Your task to perform on an android device: Open accessibility settings Image 0: 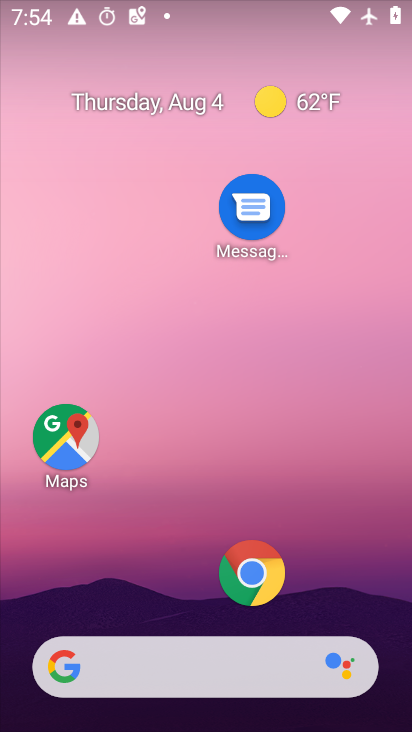
Step 0: press home button
Your task to perform on an android device: Open accessibility settings Image 1: 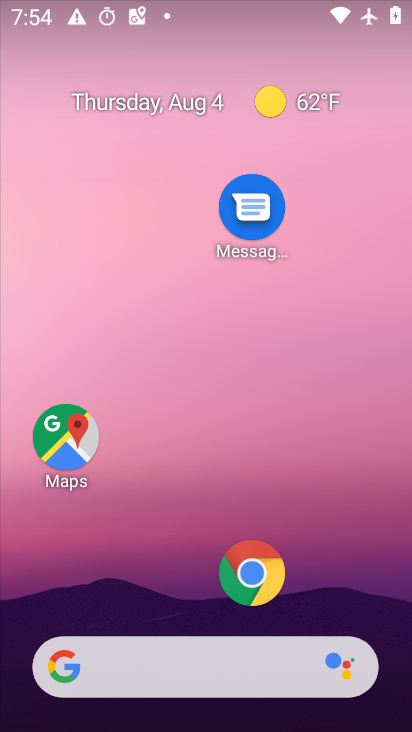
Step 1: drag from (147, 614) to (176, 108)
Your task to perform on an android device: Open accessibility settings Image 2: 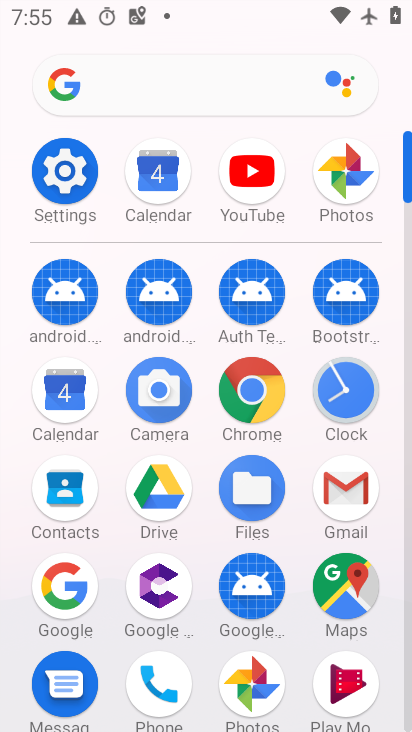
Step 2: click (61, 161)
Your task to perform on an android device: Open accessibility settings Image 3: 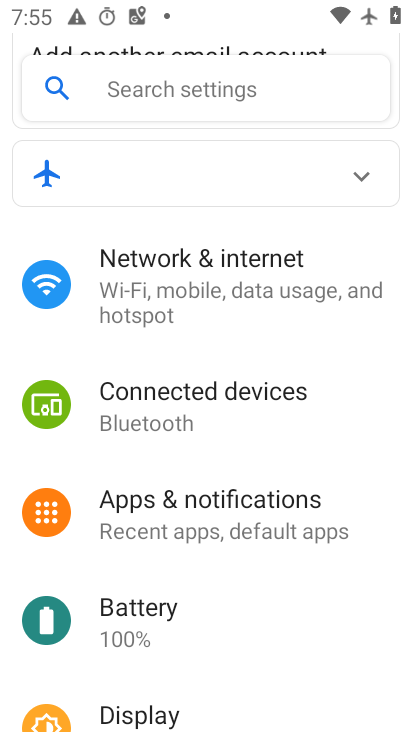
Step 3: drag from (298, 631) to (292, 174)
Your task to perform on an android device: Open accessibility settings Image 4: 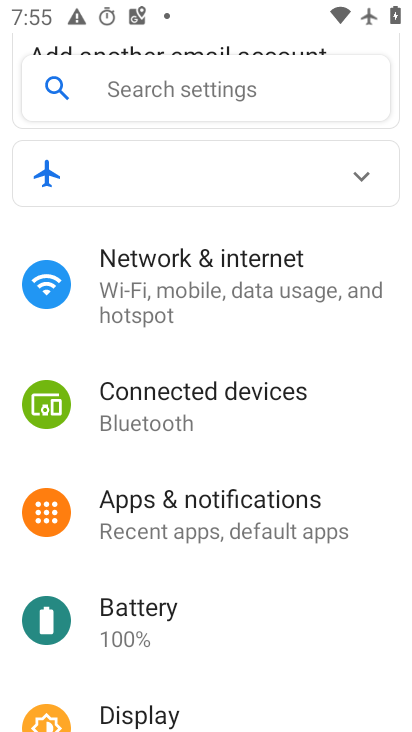
Step 4: drag from (316, 674) to (313, 228)
Your task to perform on an android device: Open accessibility settings Image 5: 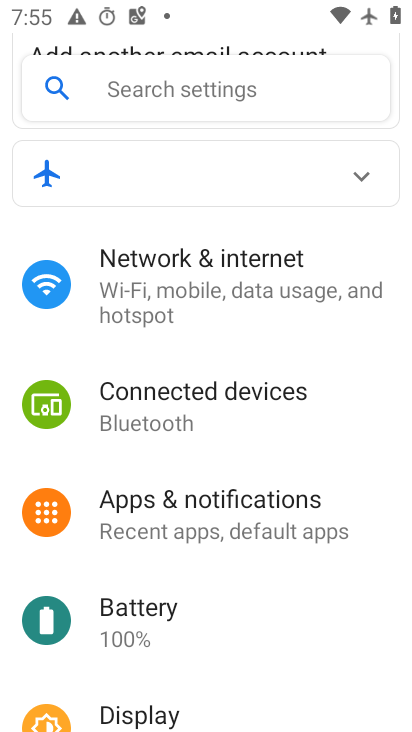
Step 5: drag from (292, 697) to (259, 304)
Your task to perform on an android device: Open accessibility settings Image 6: 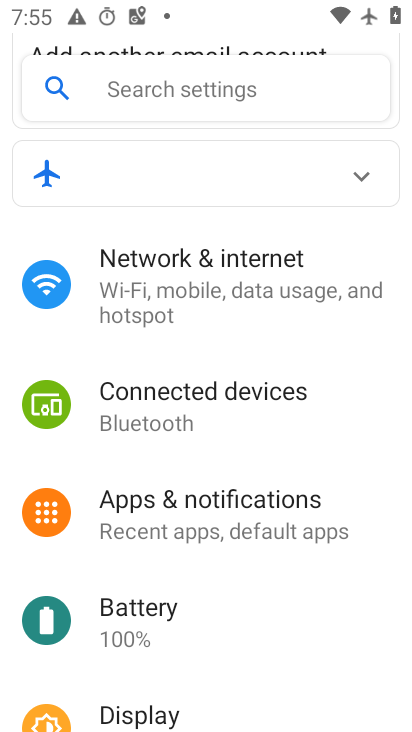
Step 6: drag from (270, 593) to (261, 45)
Your task to perform on an android device: Open accessibility settings Image 7: 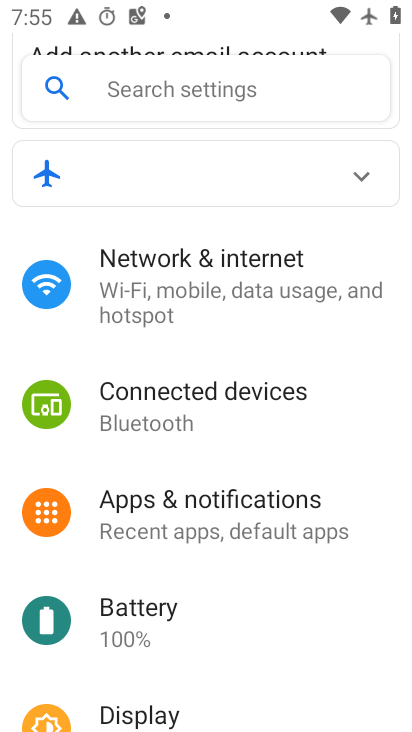
Step 7: drag from (238, 571) to (244, 47)
Your task to perform on an android device: Open accessibility settings Image 8: 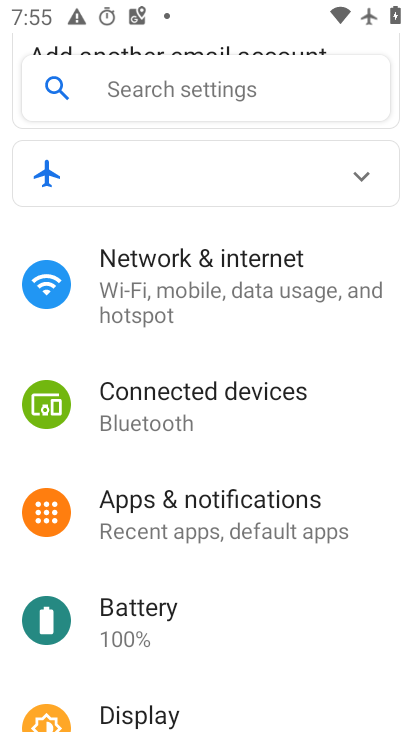
Step 8: drag from (214, 683) to (205, 67)
Your task to perform on an android device: Open accessibility settings Image 9: 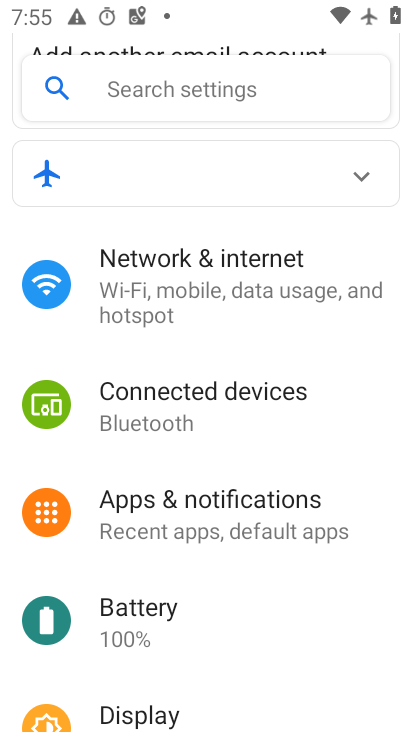
Step 9: drag from (254, 662) to (261, 260)
Your task to perform on an android device: Open accessibility settings Image 10: 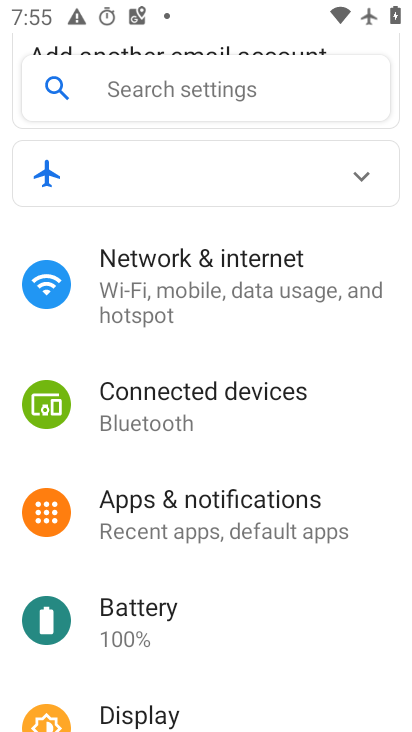
Step 10: drag from (196, 689) to (232, 145)
Your task to perform on an android device: Open accessibility settings Image 11: 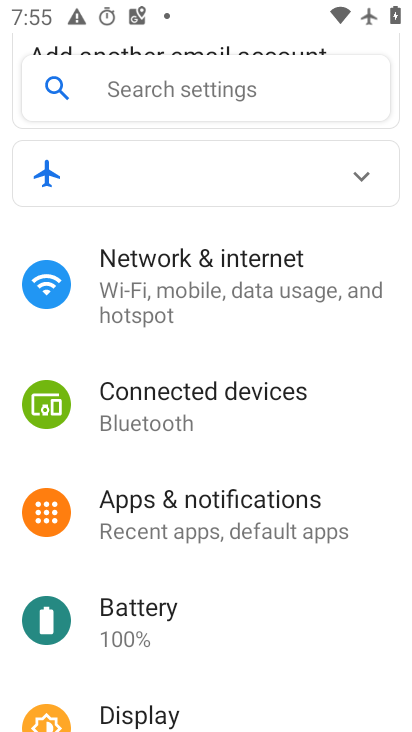
Step 11: drag from (328, 642) to (319, 223)
Your task to perform on an android device: Open accessibility settings Image 12: 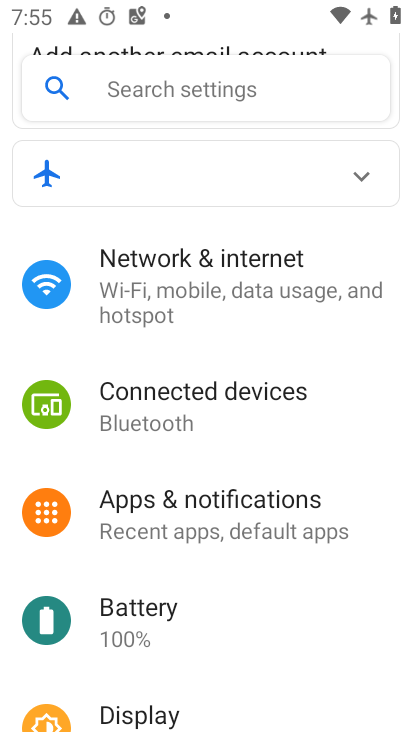
Step 12: drag from (267, 698) to (268, 193)
Your task to perform on an android device: Open accessibility settings Image 13: 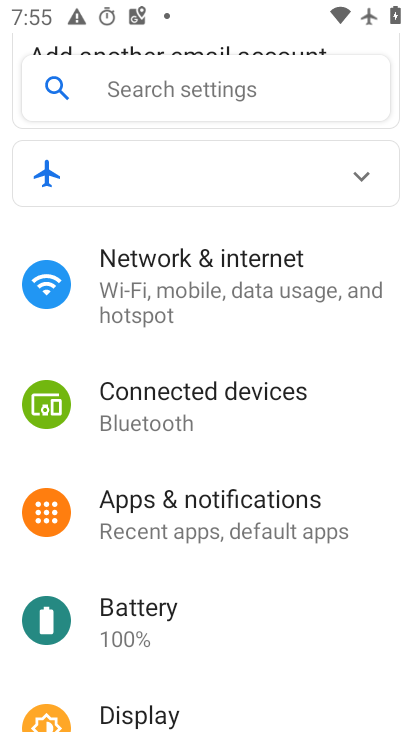
Step 13: drag from (271, 655) to (276, 121)
Your task to perform on an android device: Open accessibility settings Image 14: 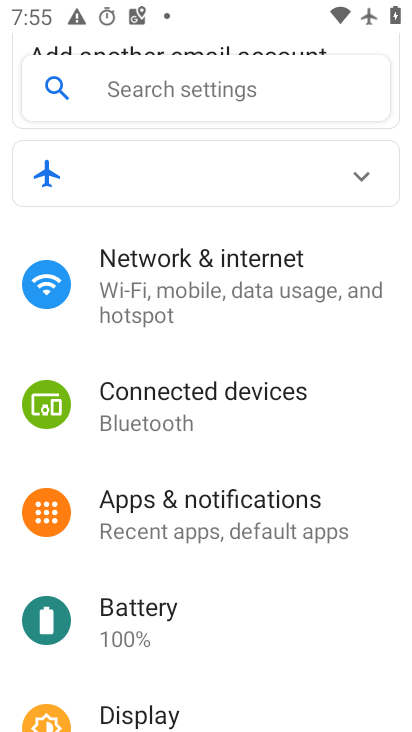
Step 14: drag from (252, 588) to (288, 82)
Your task to perform on an android device: Open accessibility settings Image 15: 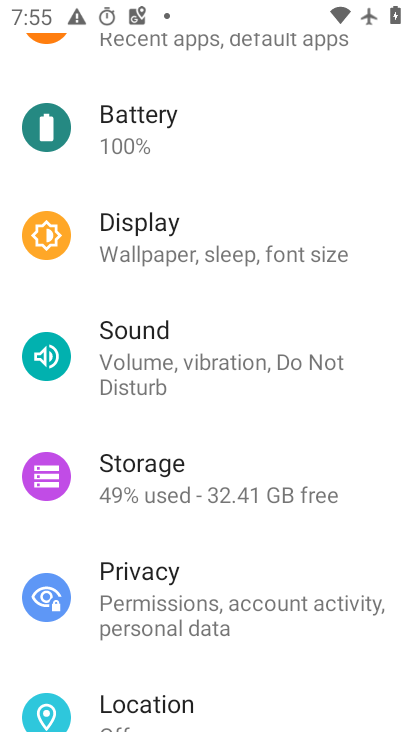
Step 15: drag from (274, 681) to (311, 132)
Your task to perform on an android device: Open accessibility settings Image 16: 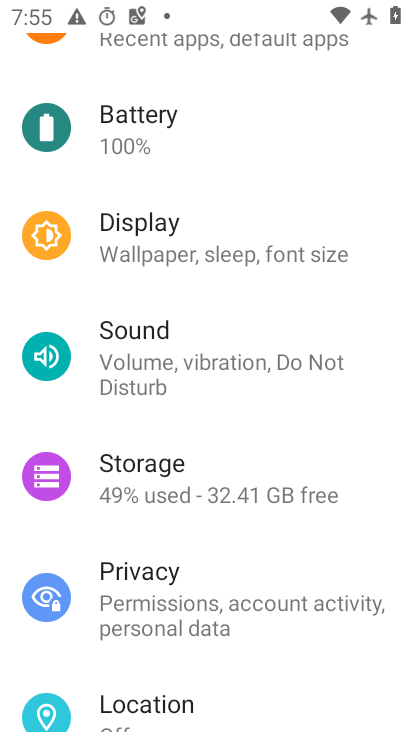
Step 16: drag from (284, 553) to (276, 175)
Your task to perform on an android device: Open accessibility settings Image 17: 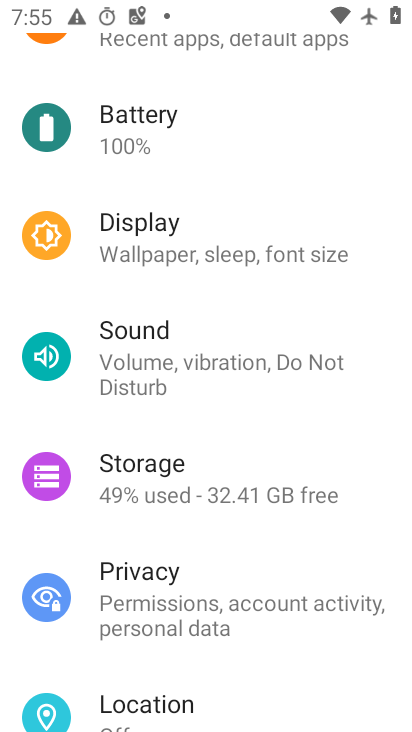
Step 17: drag from (295, 706) to (265, 245)
Your task to perform on an android device: Open accessibility settings Image 18: 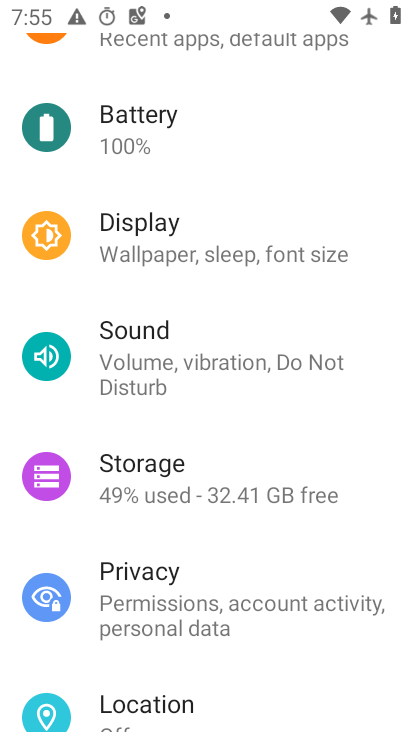
Step 18: drag from (277, 685) to (254, 30)
Your task to perform on an android device: Open accessibility settings Image 19: 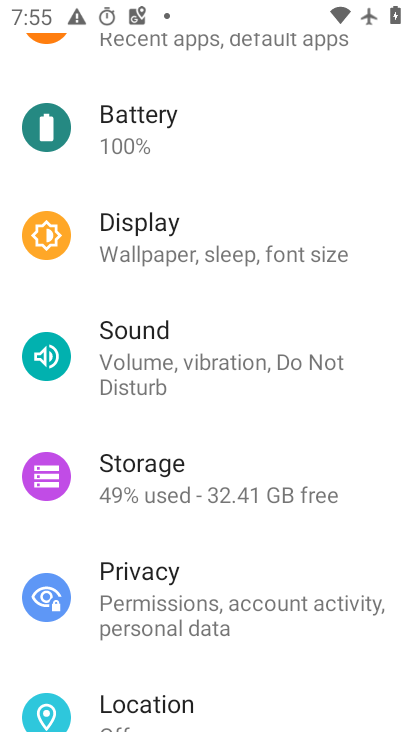
Step 19: drag from (261, 693) to (213, 129)
Your task to perform on an android device: Open accessibility settings Image 20: 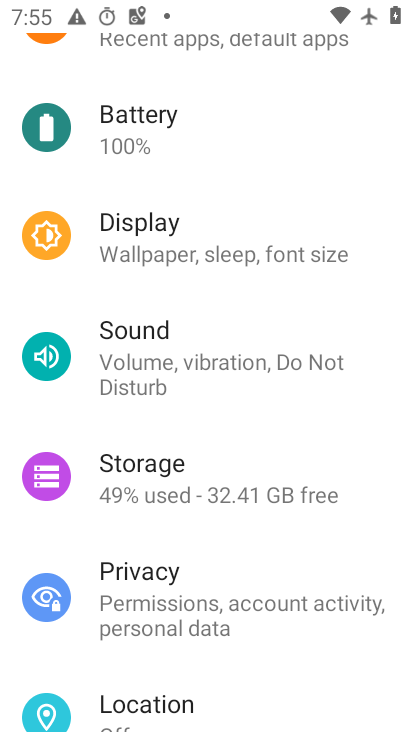
Step 20: drag from (242, 691) to (262, 128)
Your task to perform on an android device: Open accessibility settings Image 21: 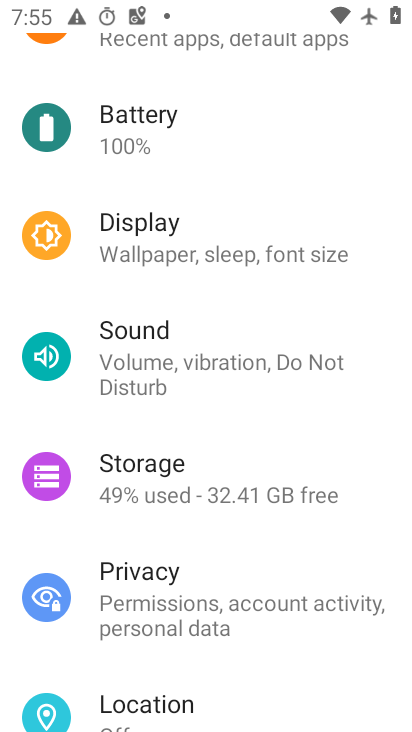
Step 21: drag from (235, 578) to (339, 119)
Your task to perform on an android device: Open accessibility settings Image 22: 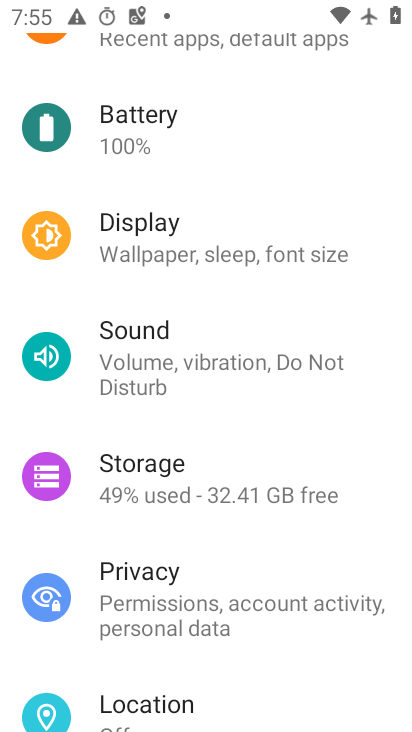
Step 22: drag from (233, 720) to (241, 288)
Your task to perform on an android device: Open accessibility settings Image 23: 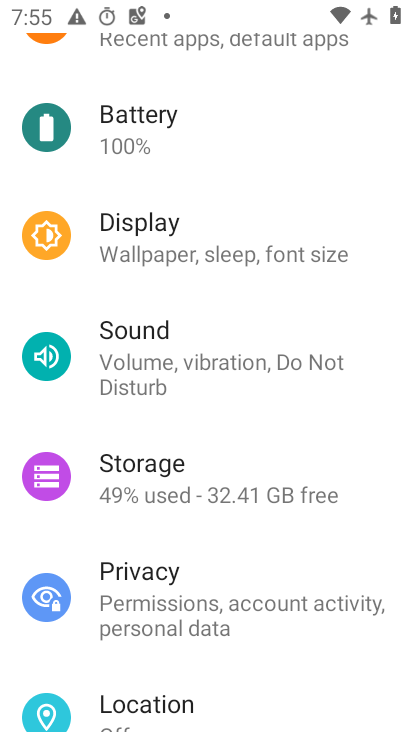
Step 23: drag from (257, 700) to (301, 311)
Your task to perform on an android device: Open accessibility settings Image 24: 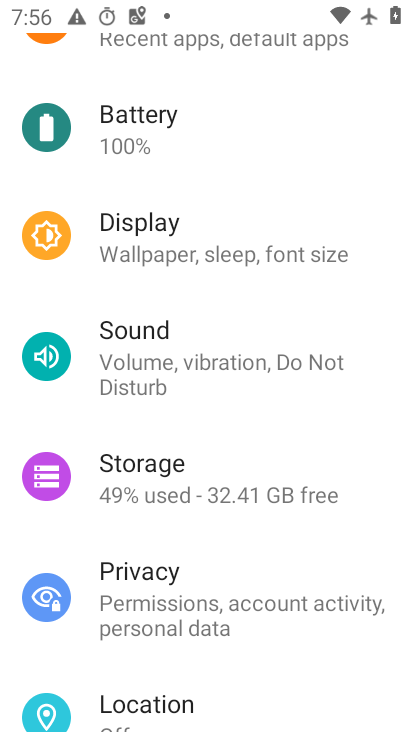
Step 24: drag from (224, 556) to (247, 175)
Your task to perform on an android device: Open accessibility settings Image 25: 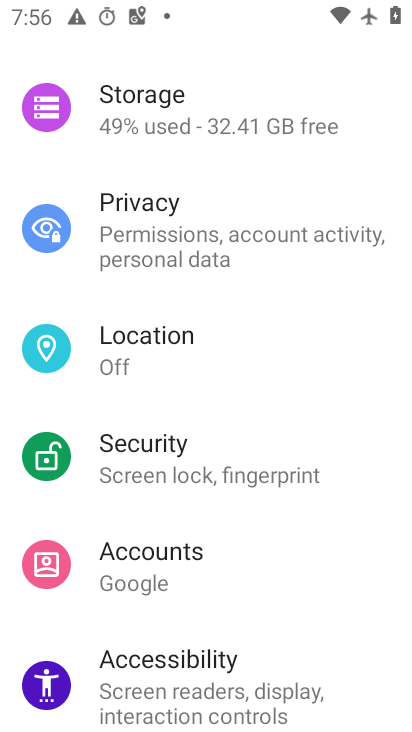
Step 25: click (176, 684)
Your task to perform on an android device: Open accessibility settings Image 26: 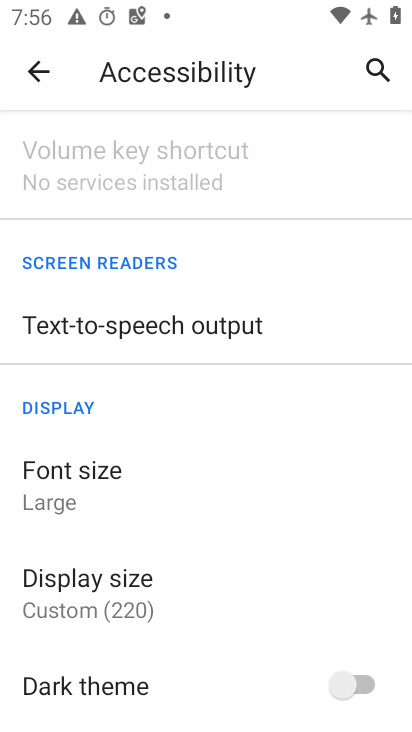
Step 26: task complete